Your task to perform on an android device: Go to display settings Image 0: 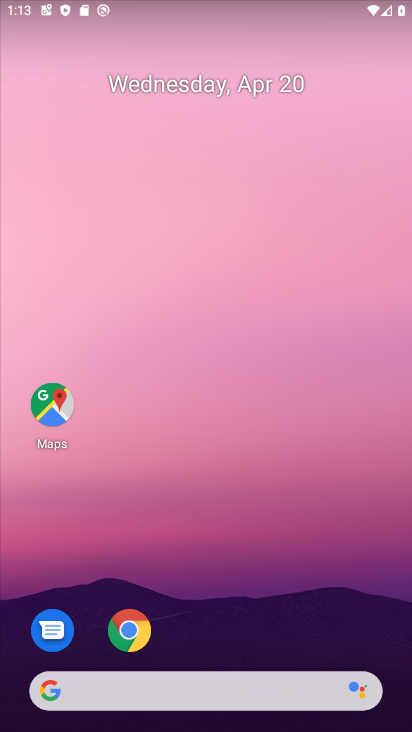
Step 0: drag from (374, 563) to (340, 74)
Your task to perform on an android device: Go to display settings Image 1: 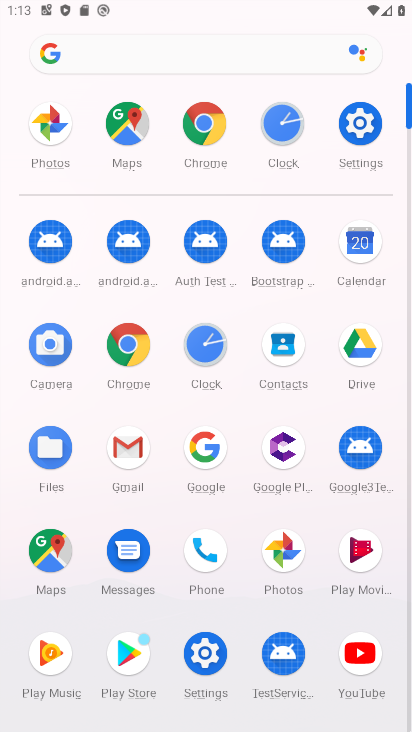
Step 1: click (357, 119)
Your task to perform on an android device: Go to display settings Image 2: 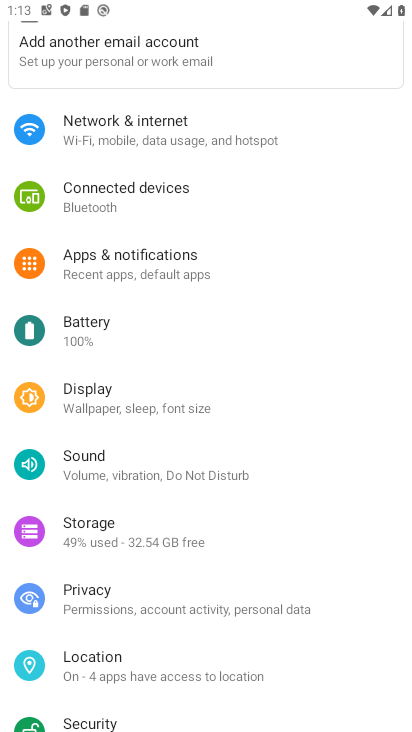
Step 2: click (148, 405)
Your task to perform on an android device: Go to display settings Image 3: 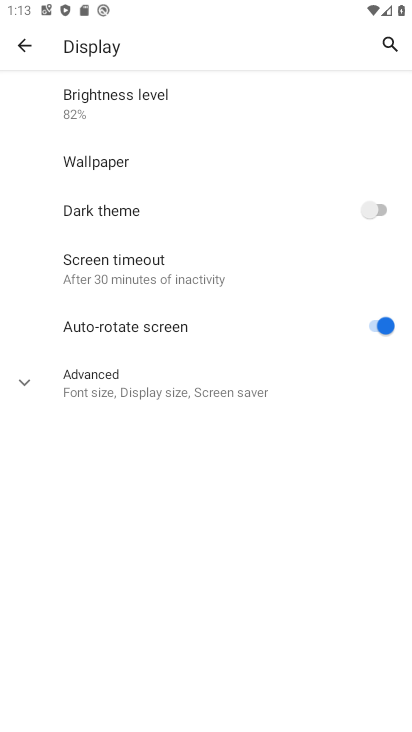
Step 3: task complete